Your task to perform on an android device: uninstall "Adobe Acrobat Reader: Edit PDF" Image 0: 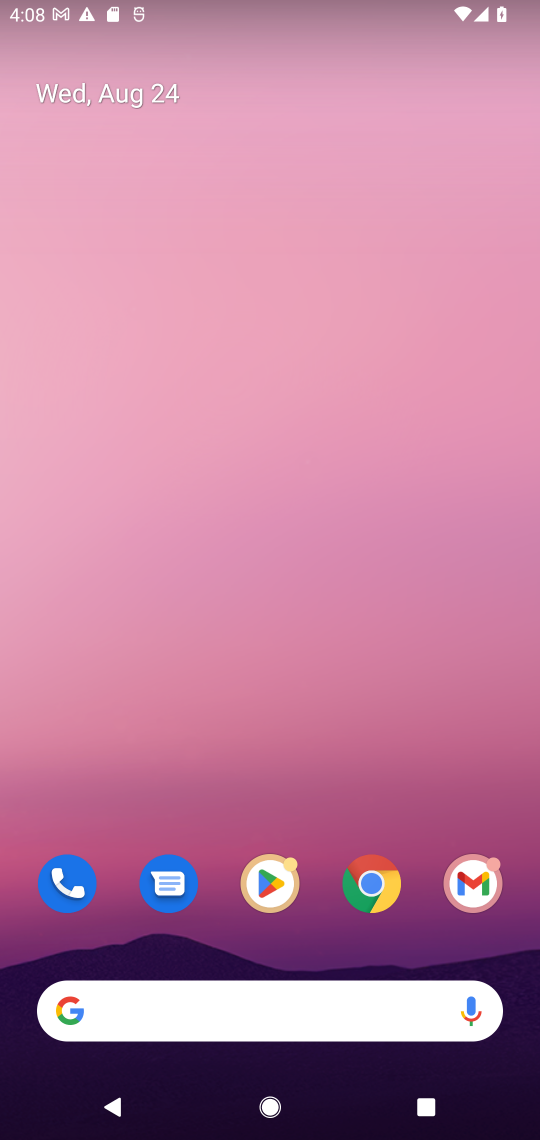
Step 0: drag from (251, 981) to (262, 388)
Your task to perform on an android device: uninstall "Adobe Acrobat Reader: Edit PDF" Image 1: 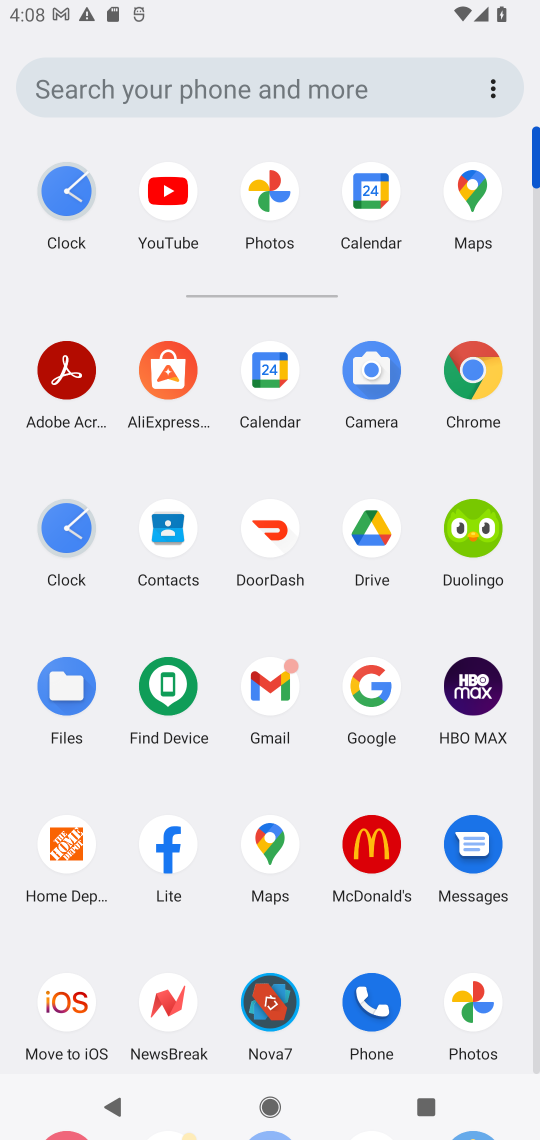
Step 1: drag from (121, 1064) to (147, 491)
Your task to perform on an android device: uninstall "Adobe Acrobat Reader: Edit PDF" Image 2: 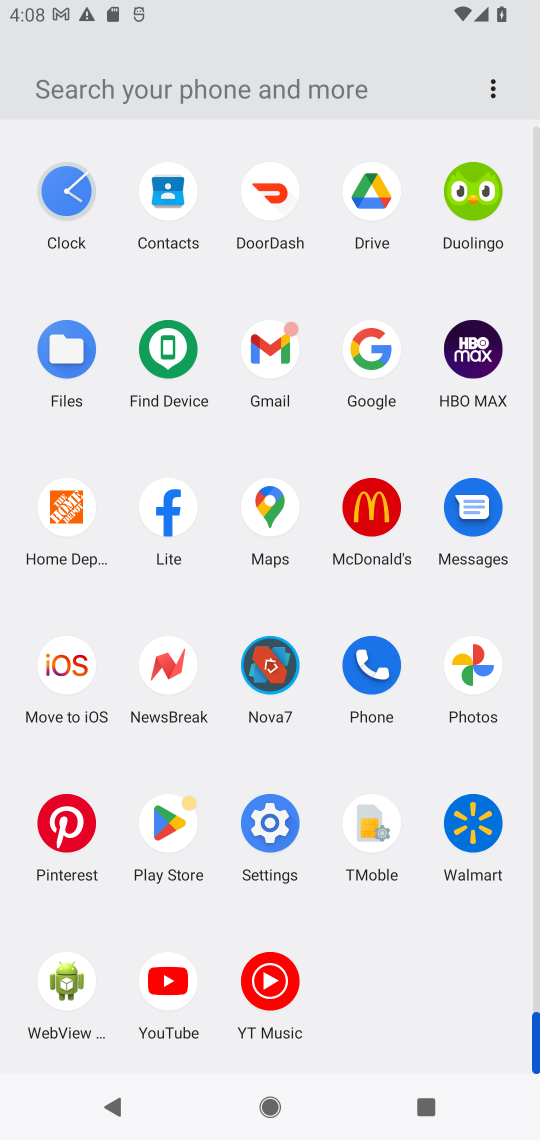
Step 2: click (170, 830)
Your task to perform on an android device: uninstall "Adobe Acrobat Reader: Edit PDF" Image 3: 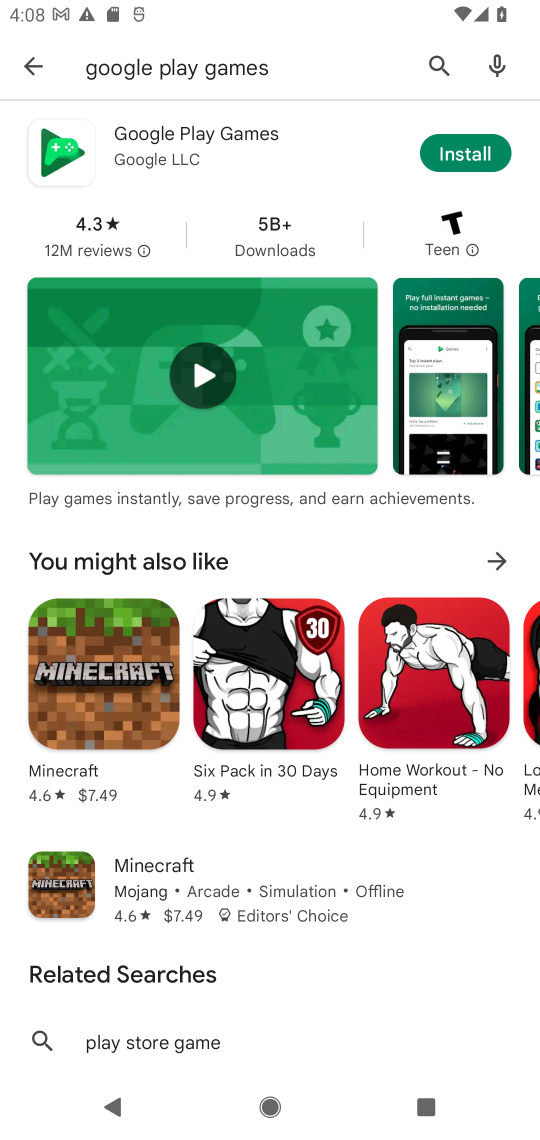
Step 3: click (442, 75)
Your task to perform on an android device: uninstall "Adobe Acrobat Reader: Edit PDF" Image 4: 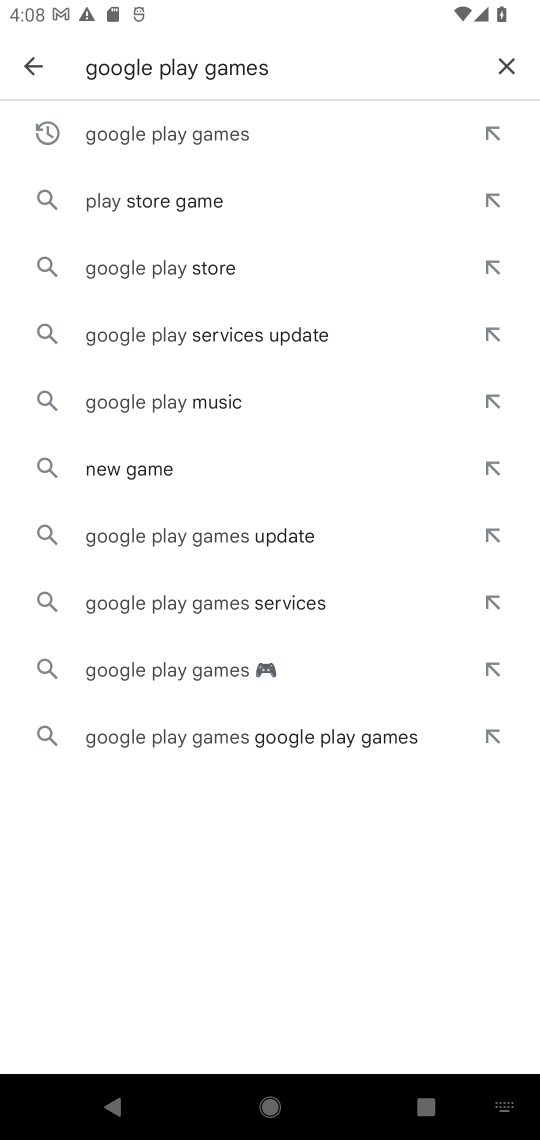
Step 4: click (432, 62)
Your task to perform on an android device: uninstall "Adobe Acrobat Reader: Edit PDF" Image 5: 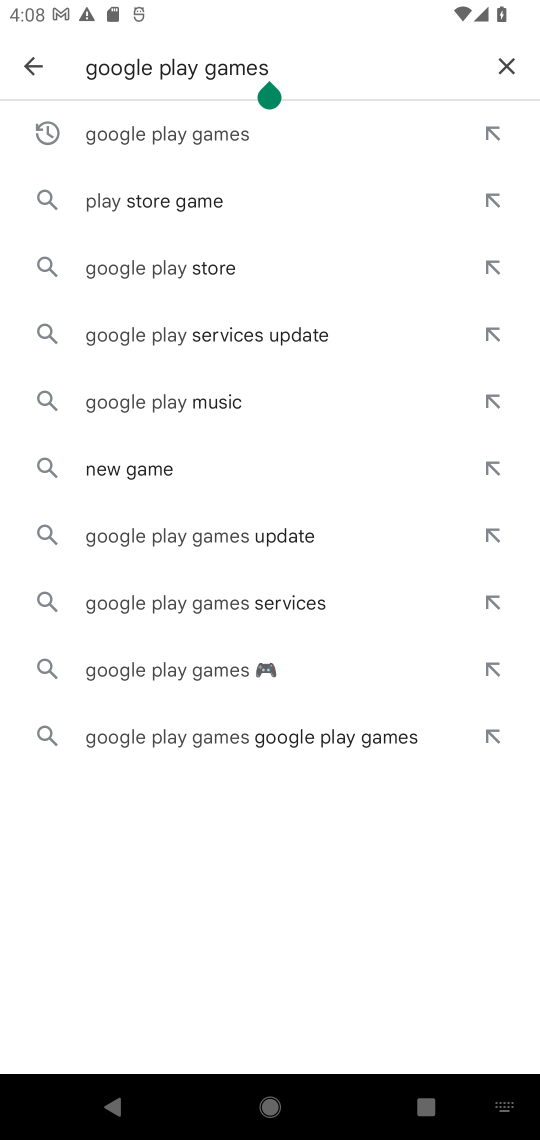
Step 5: click (503, 69)
Your task to perform on an android device: uninstall "Adobe Acrobat Reader: Edit PDF" Image 6: 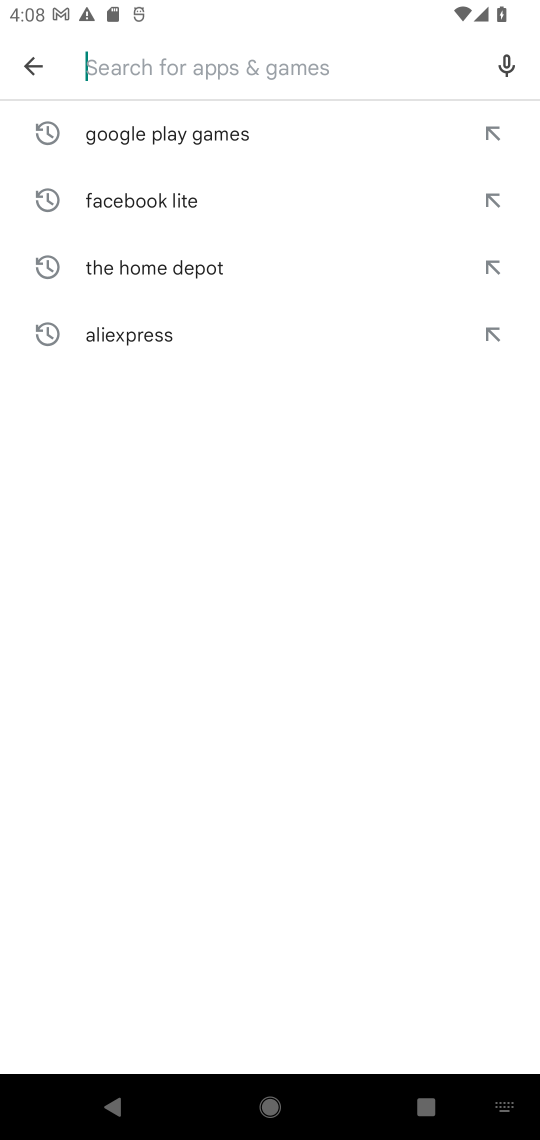
Step 6: type "Adobe Acrobat Reader: Edit PDF"
Your task to perform on an android device: uninstall "Adobe Acrobat Reader: Edit PDF" Image 7: 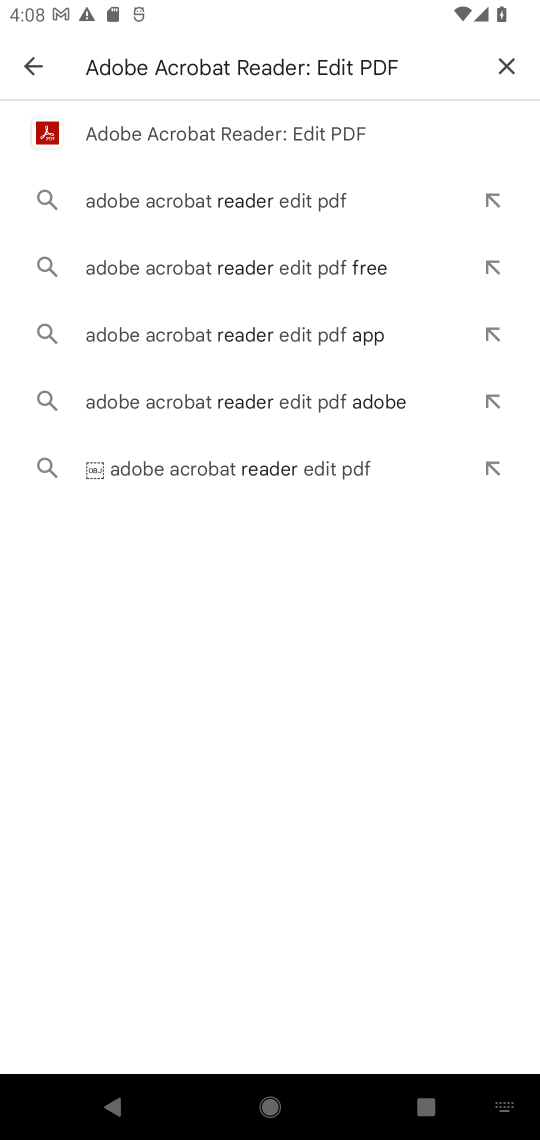
Step 7: click (160, 132)
Your task to perform on an android device: uninstall "Adobe Acrobat Reader: Edit PDF" Image 8: 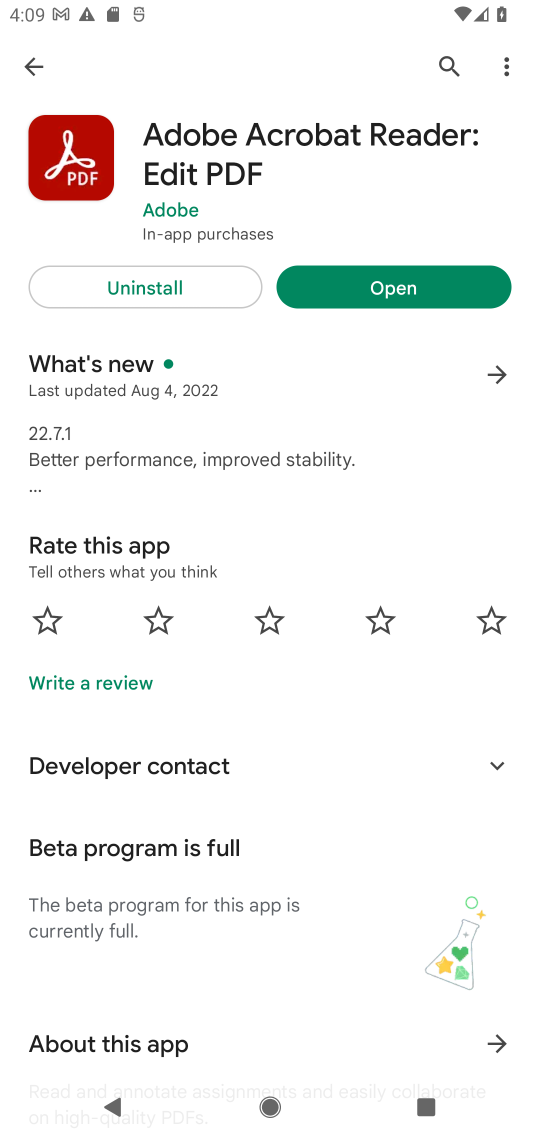
Step 8: click (173, 282)
Your task to perform on an android device: uninstall "Adobe Acrobat Reader: Edit PDF" Image 9: 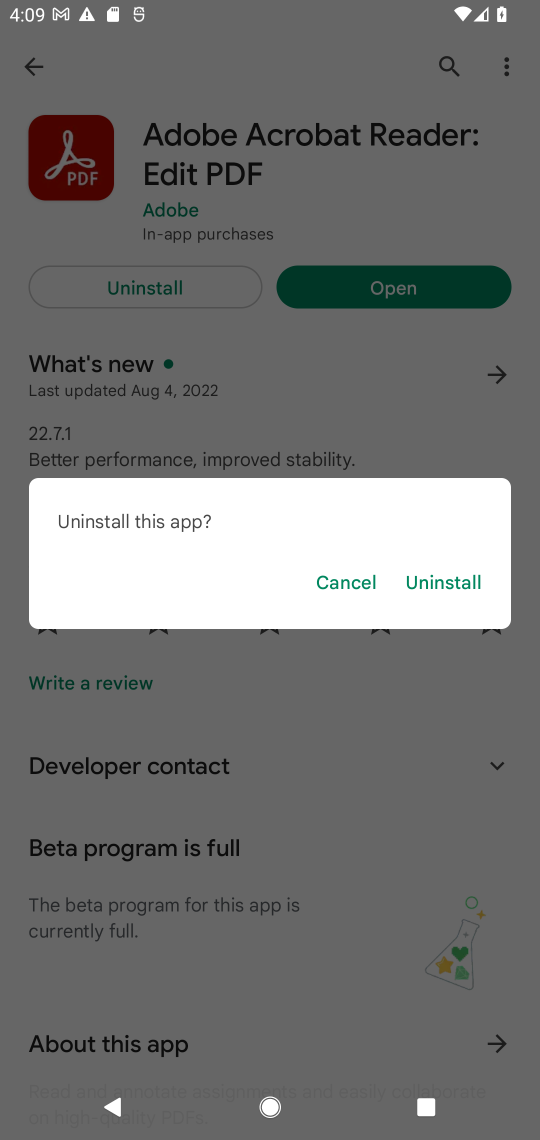
Step 9: click (449, 592)
Your task to perform on an android device: uninstall "Adobe Acrobat Reader: Edit PDF" Image 10: 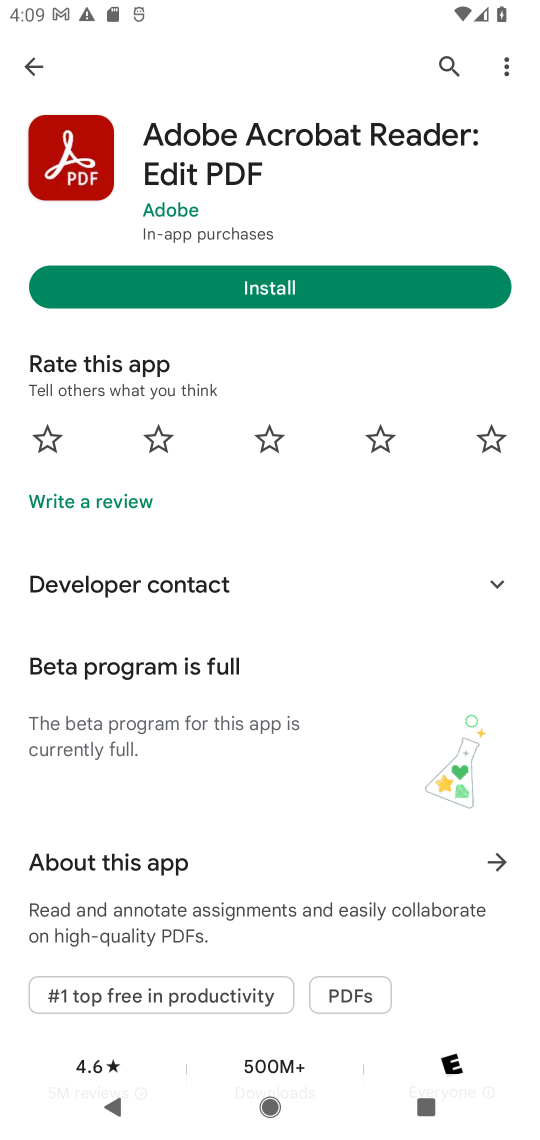
Step 10: task complete